Your task to perform on an android device: Open eBay Image 0: 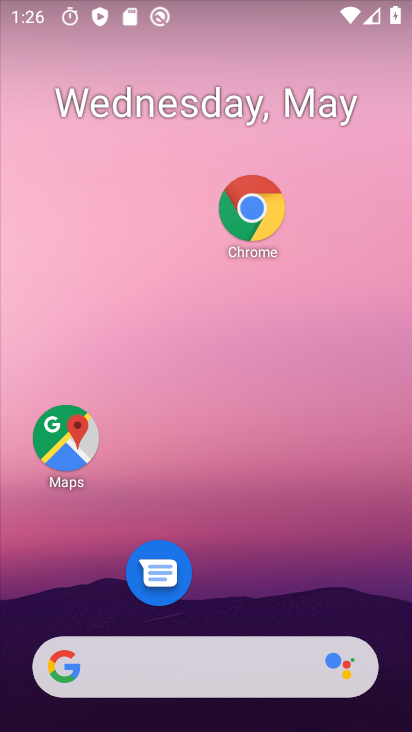
Step 0: click (165, 680)
Your task to perform on an android device: Open eBay Image 1: 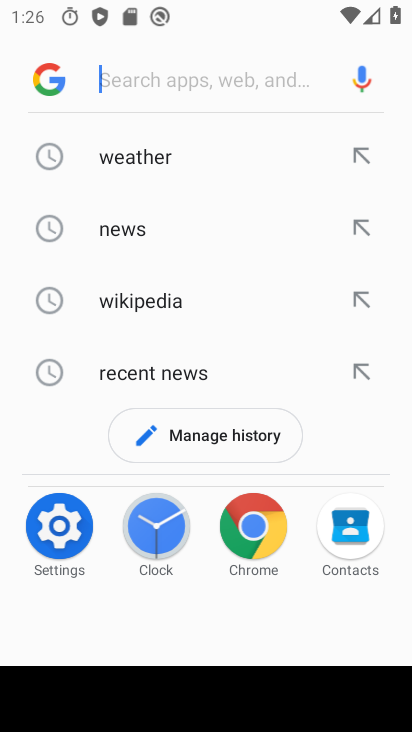
Step 1: type "ebay"
Your task to perform on an android device: Open eBay Image 2: 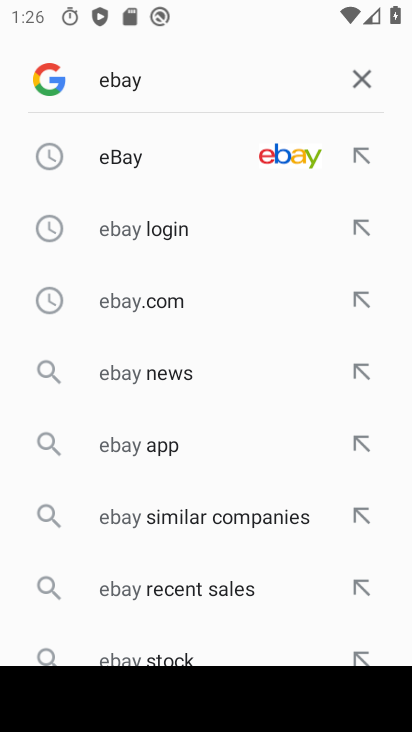
Step 2: click (210, 157)
Your task to perform on an android device: Open eBay Image 3: 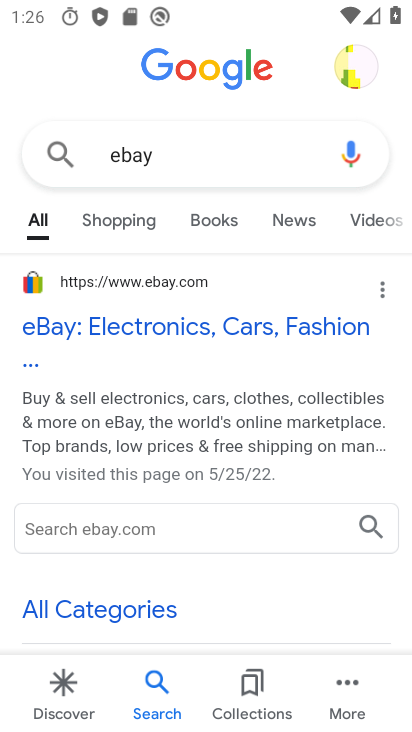
Step 3: task complete